Your task to perform on an android device: change the clock style Image 0: 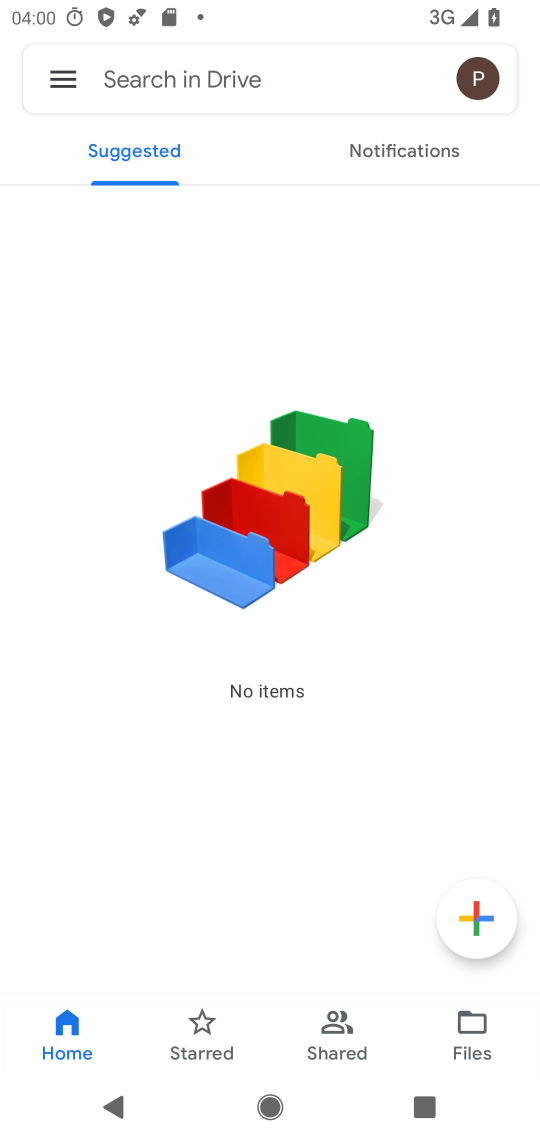
Step 0: press home button
Your task to perform on an android device: change the clock style Image 1: 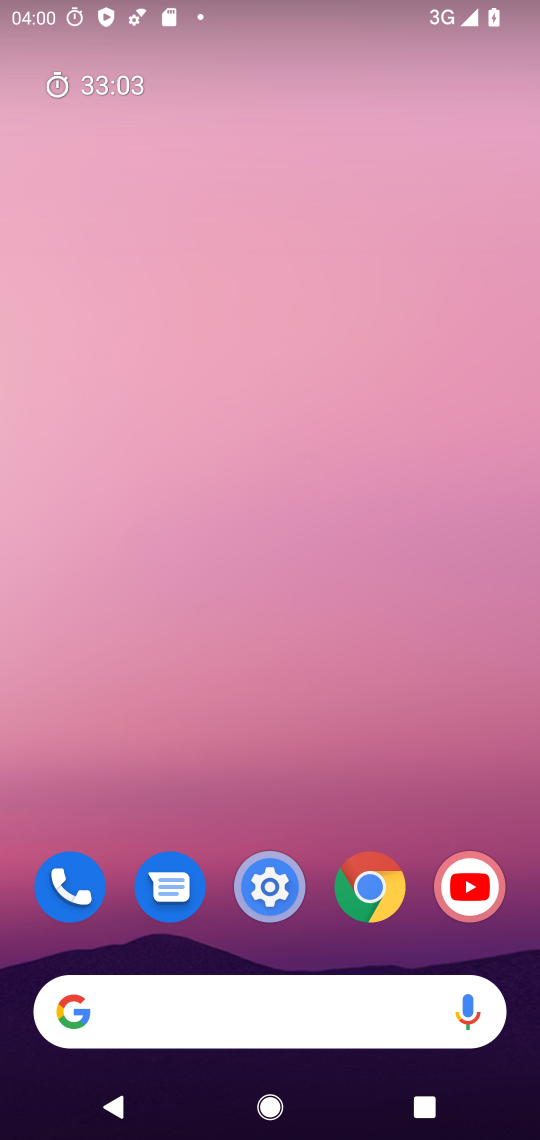
Step 1: drag from (412, 832) to (410, 197)
Your task to perform on an android device: change the clock style Image 2: 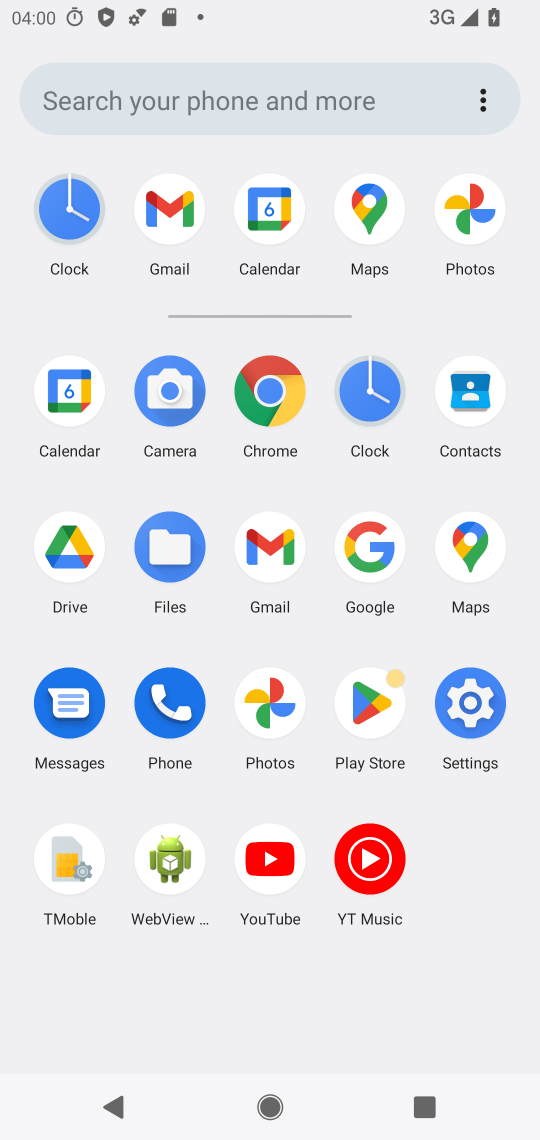
Step 2: click (373, 391)
Your task to perform on an android device: change the clock style Image 3: 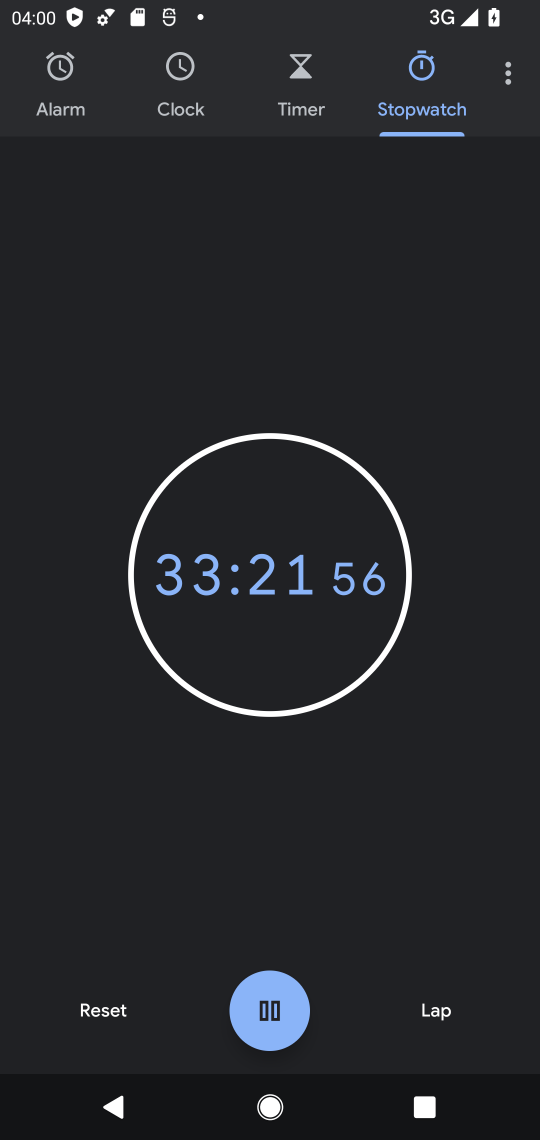
Step 3: click (513, 87)
Your task to perform on an android device: change the clock style Image 4: 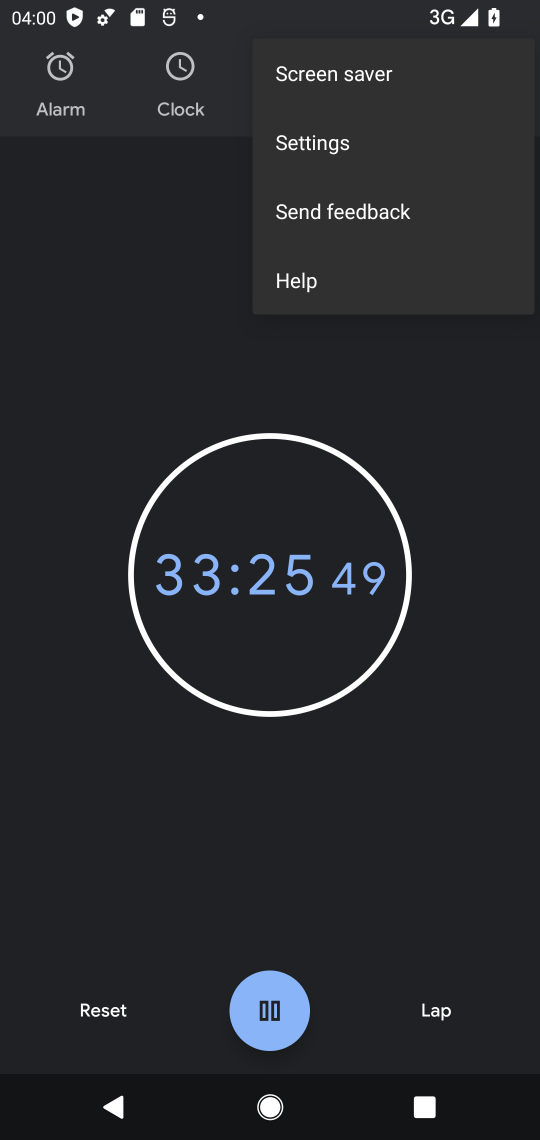
Step 4: click (333, 147)
Your task to perform on an android device: change the clock style Image 5: 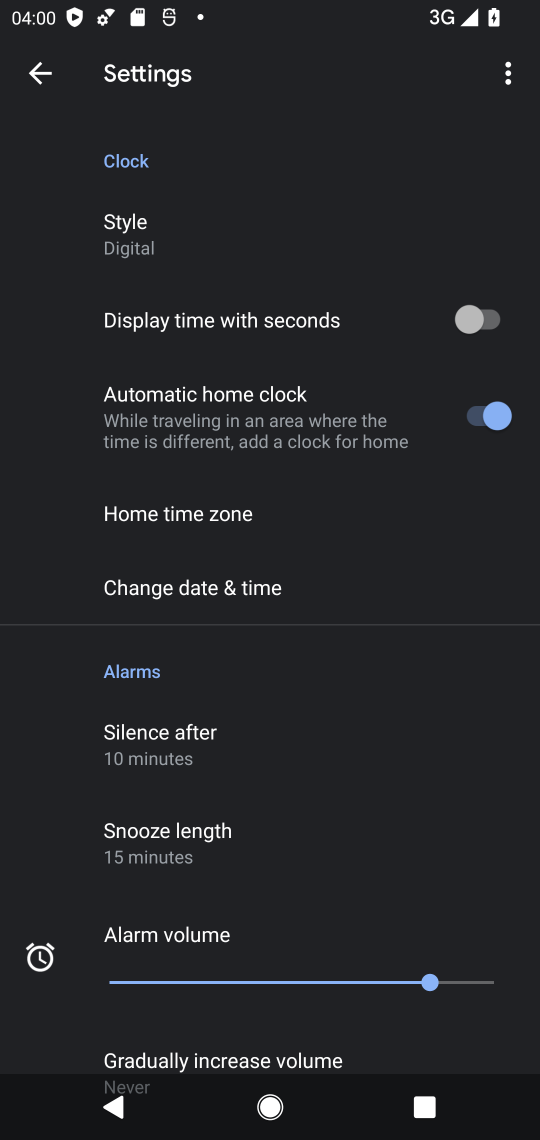
Step 5: drag from (454, 608) to (460, 441)
Your task to perform on an android device: change the clock style Image 6: 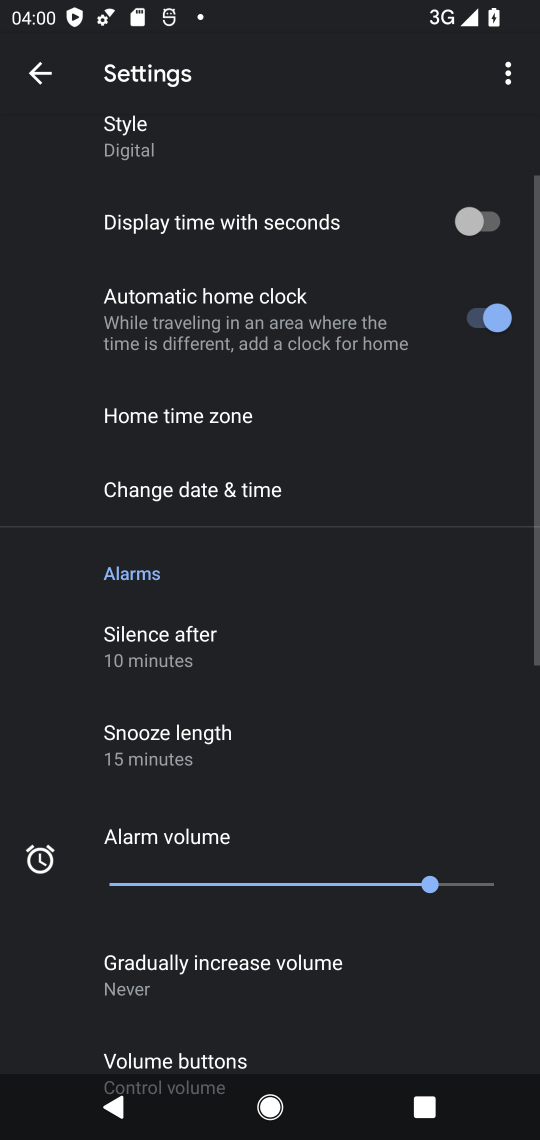
Step 6: drag from (422, 644) to (422, 483)
Your task to perform on an android device: change the clock style Image 7: 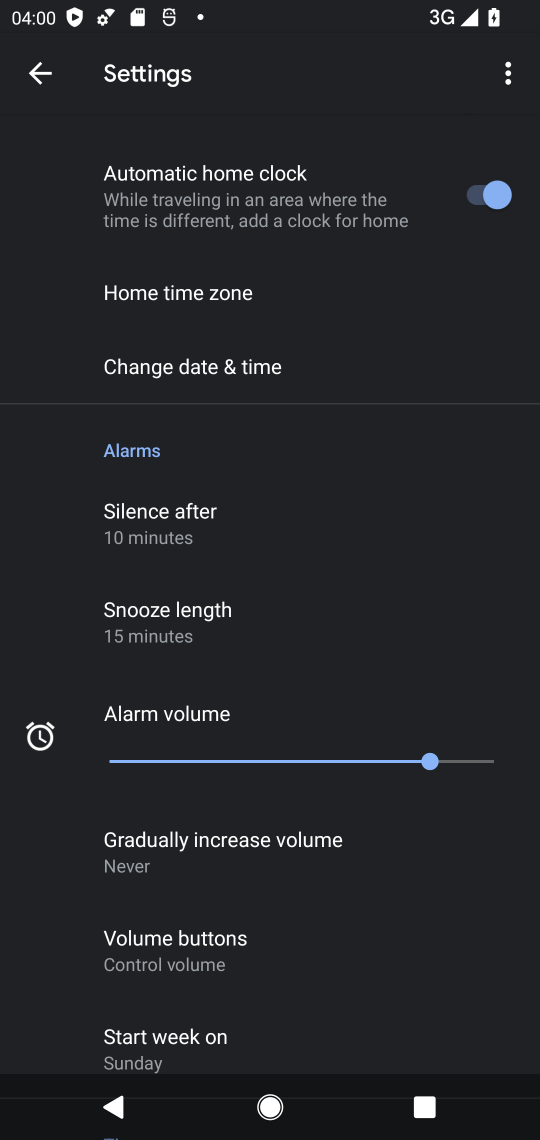
Step 7: drag from (408, 686) to (434, 469)
Your task to perform on an android device: change the clock style Image 8: 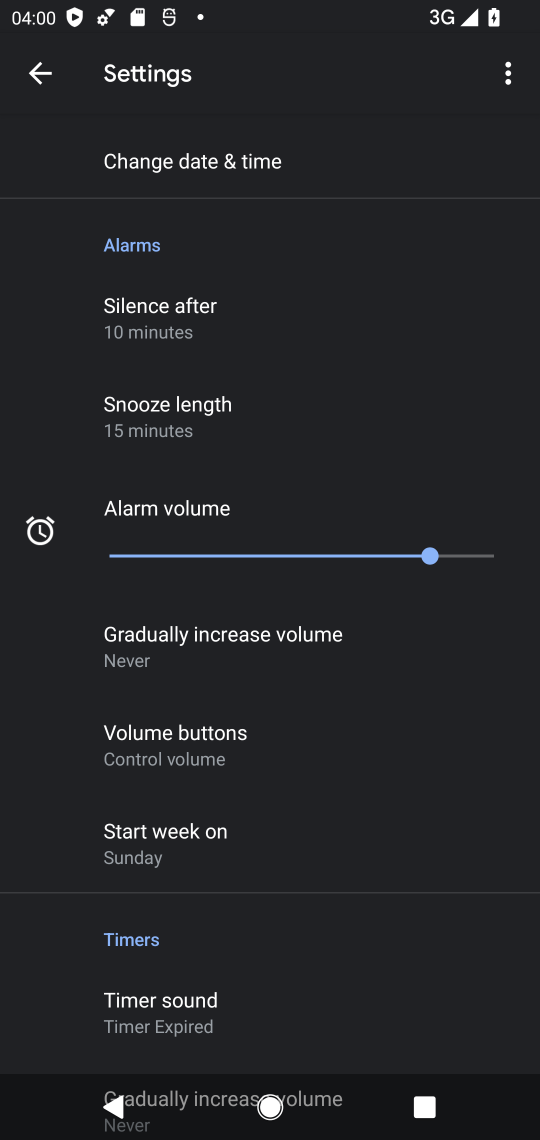
Step 8: drag from (422, 732) to (441, 528)
Your task to perform on an android device: change the clock style Image 9: 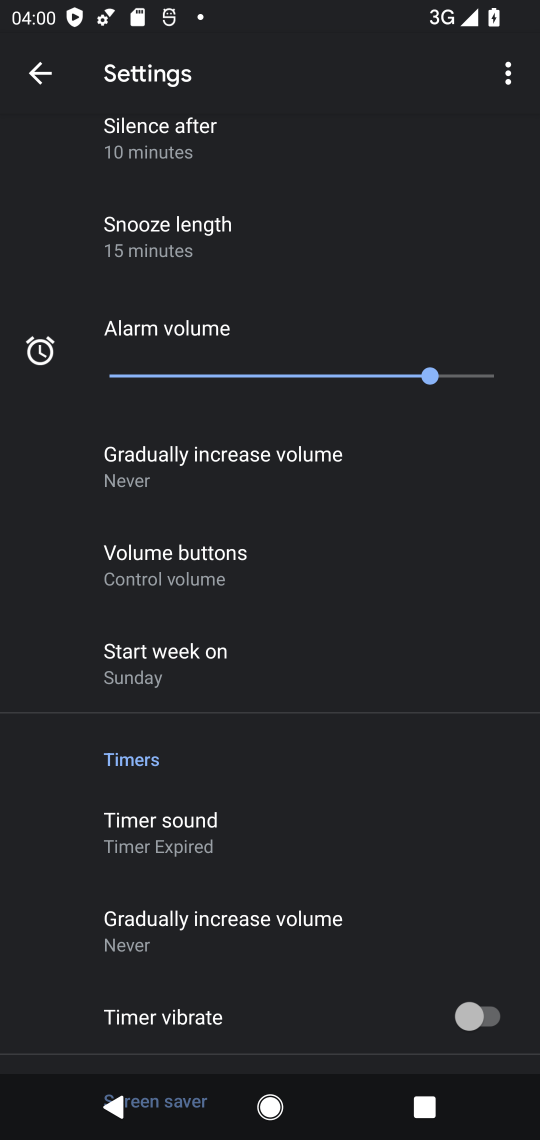
Step 9: drag from (456, 803) to (471, 615)
Your task to perform on an android device: change the clock style Image 10: 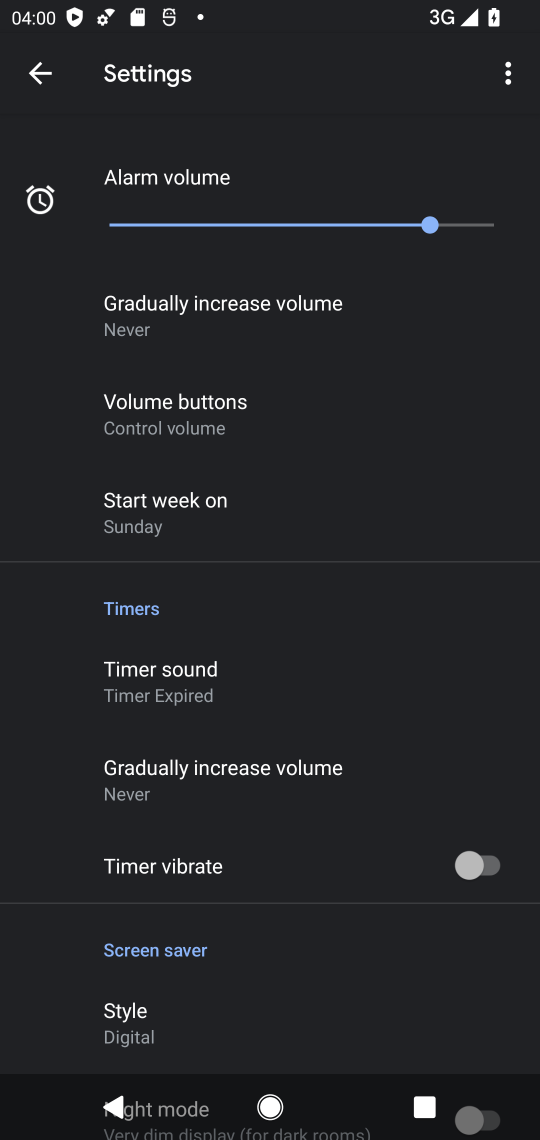
Step 10: drag from (395, 469) to (417, 640)
Your task to perform on an android device: change the clock style Image 11: 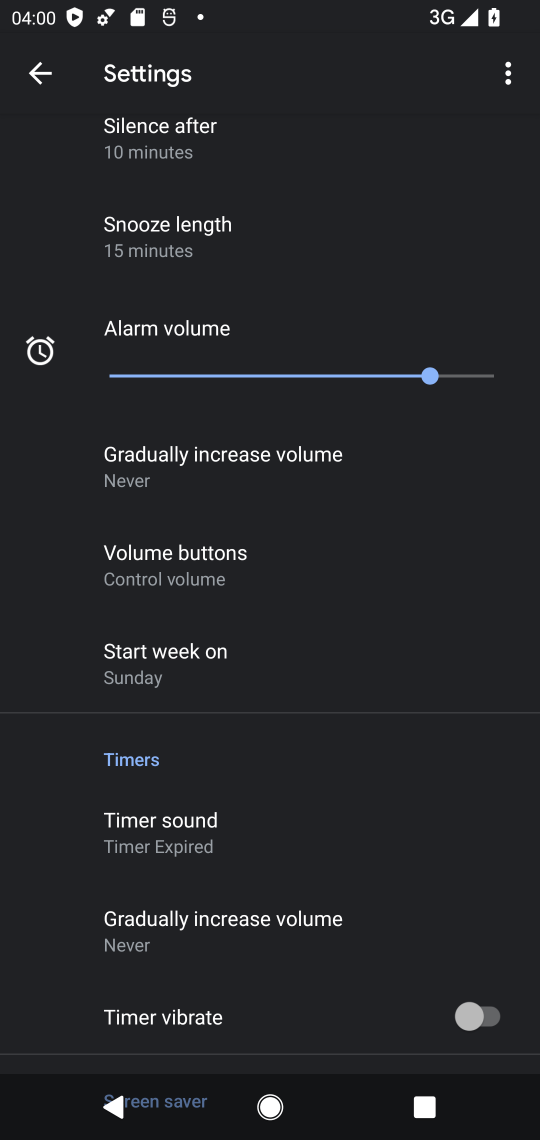
Step 11: drag from (450, 411) to (452, 592)
Your task to perform on an android device: change the clock style Image 12: 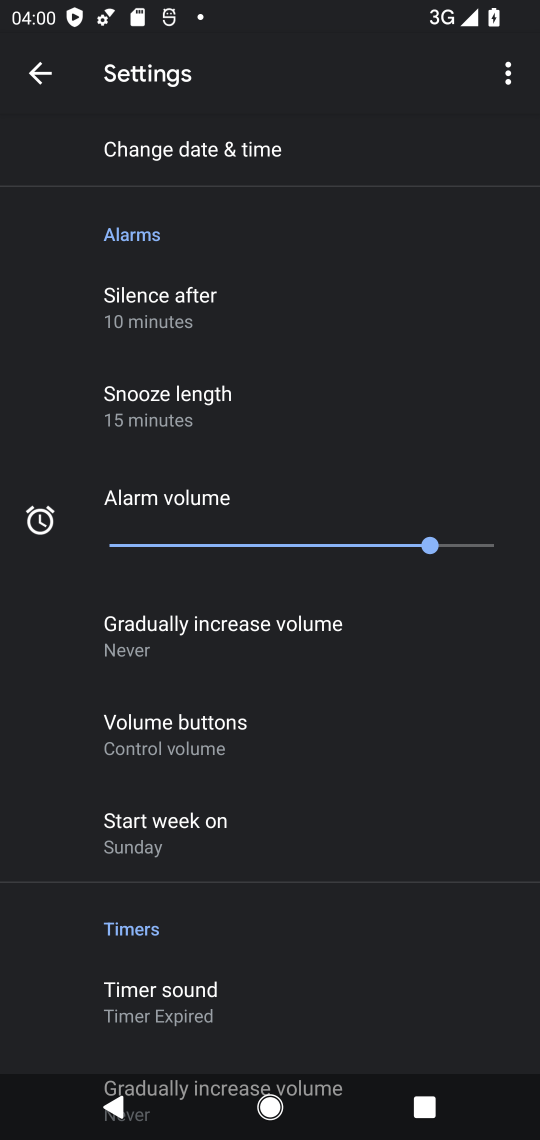
Step 12: drag from (452, 266) to (472, 464)
Your task to perform on an android device: change the clock style Image 13: 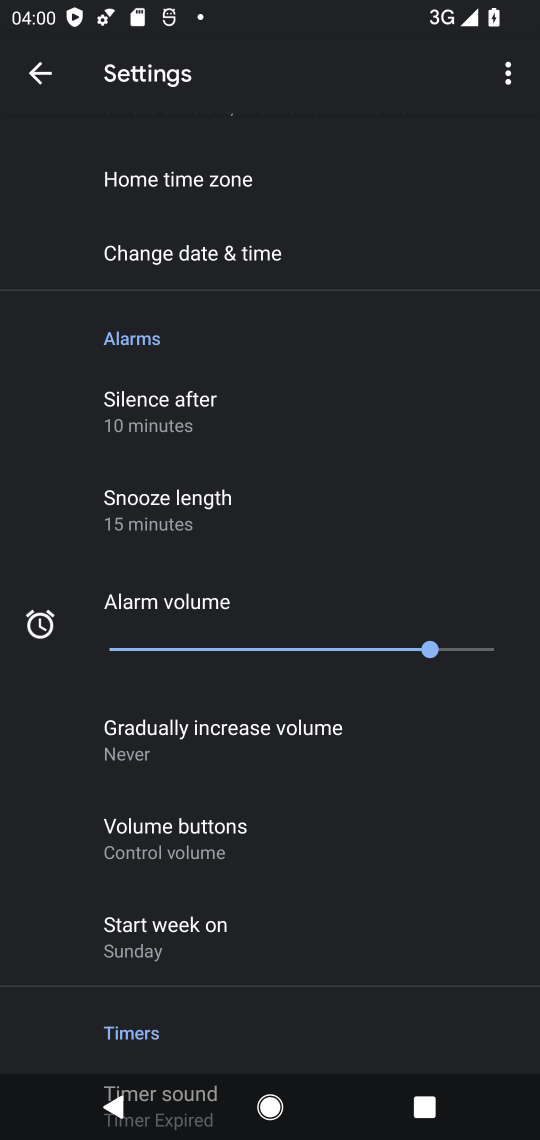
Step 13: drag from (436, 275) to (441, 472)
Your task to perform on an android device: change the clock style Image 14: 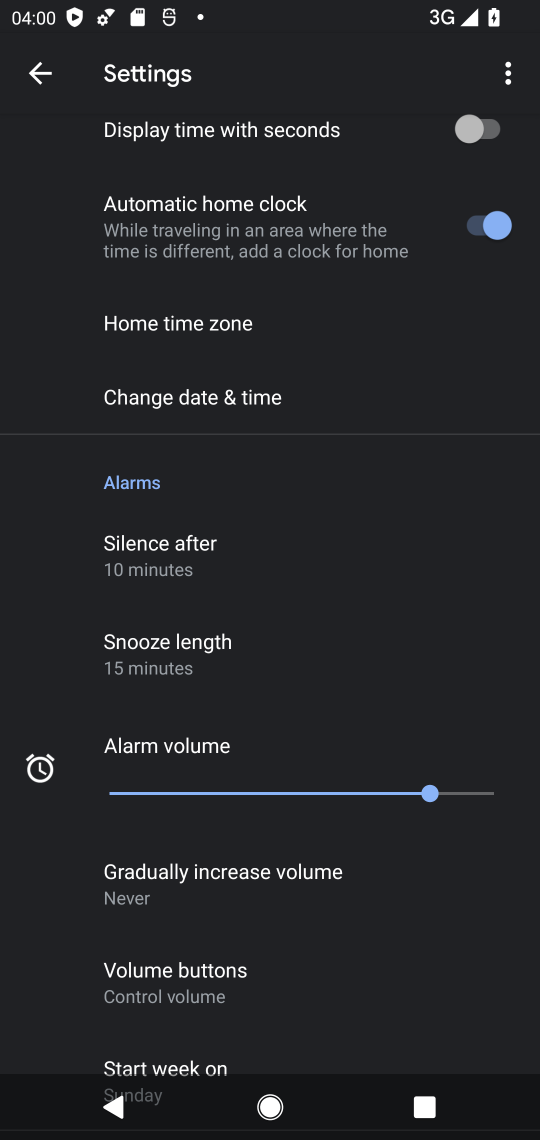
Step 14: drag from (411, 193) to (406, 511)
Your task to perform on an android device: change the clock style Image 15: 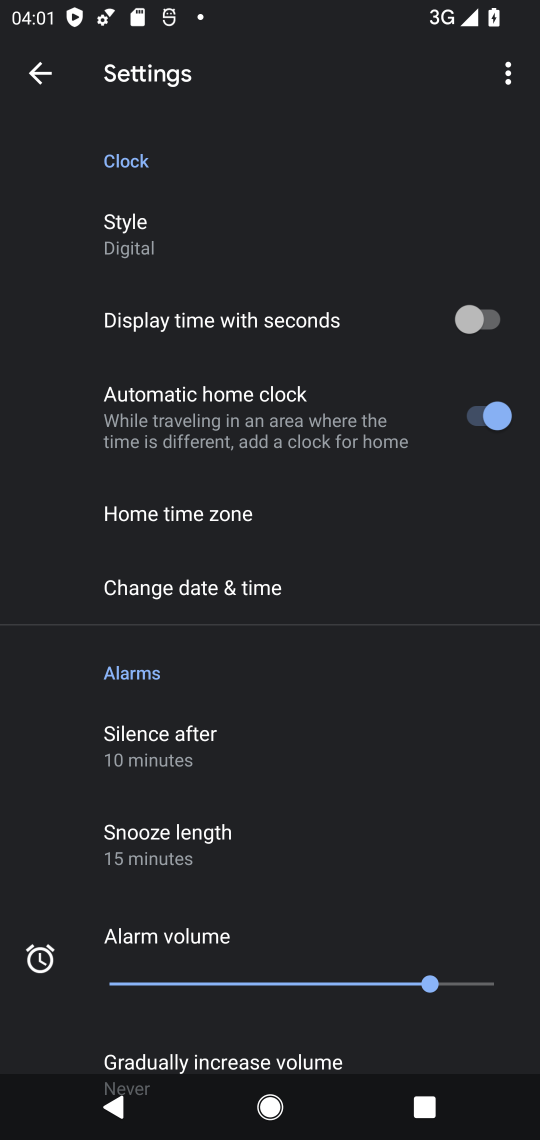
Step 15: click (184, 241)
Your task to perform on an android device: change the clock style Image 16: 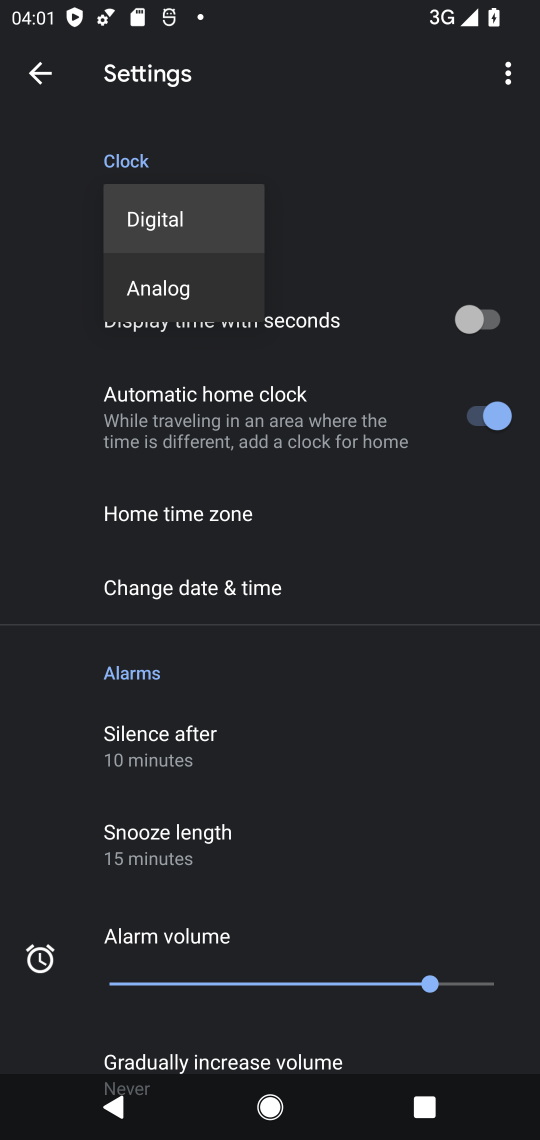
Step 16: click (193, 295)
Your task to perform on an android device: change the clock style Image 17: 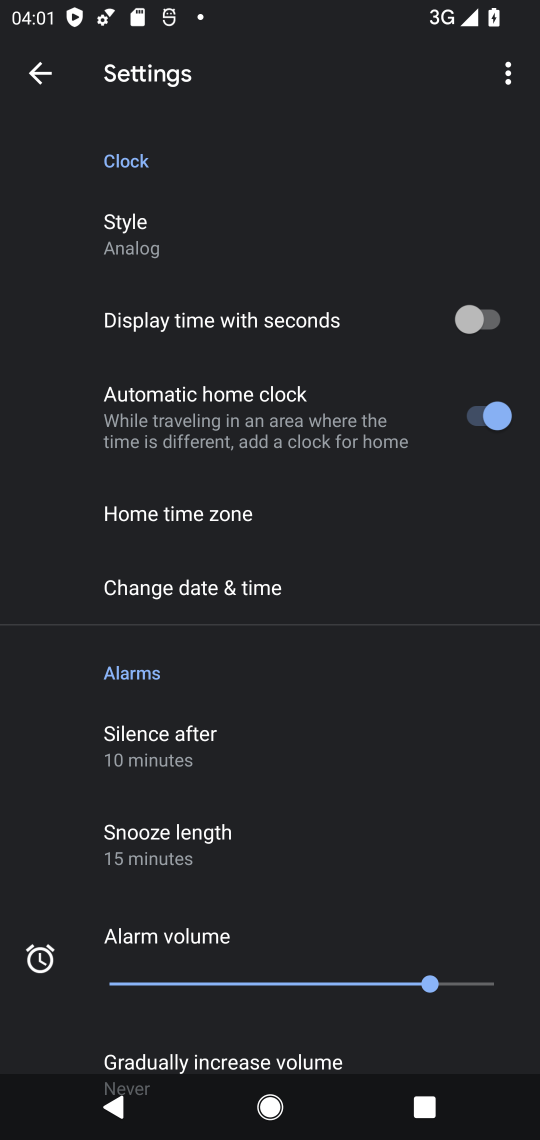
Step 17: task complete